Your task to perform on an android device: Open CNN.com Image 0: 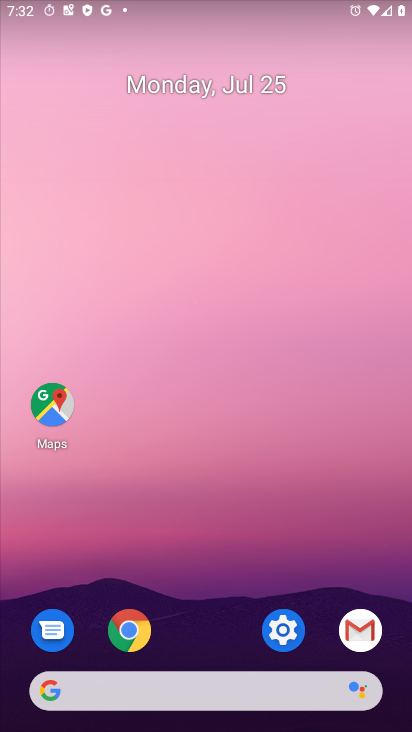
Step 0: click (135, 647)
Your task to perform on an android device: Open CNN.com Image 1: 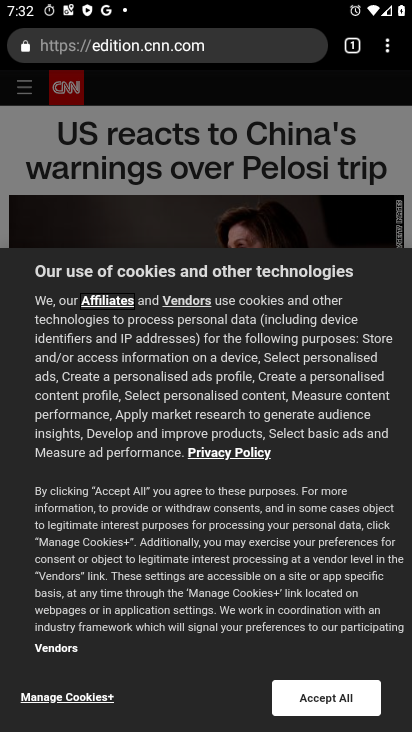
Step 1: click (129, 52)
Your task to perform on an android device: Open CNN.com Image 2: 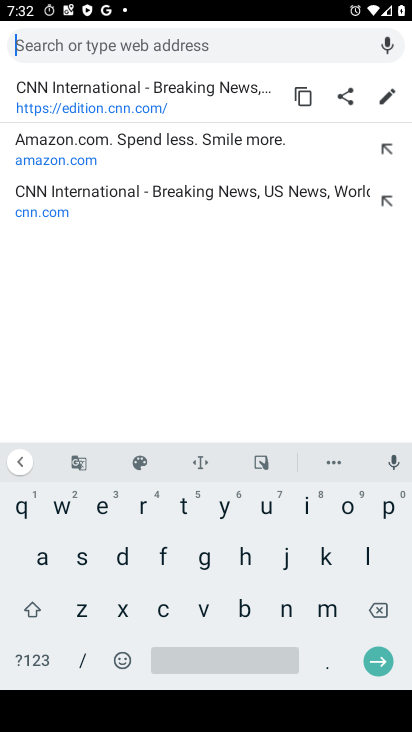
Step 2: click (97, 88)
Your task to perform on an android device: Open CNN.com Image 3: 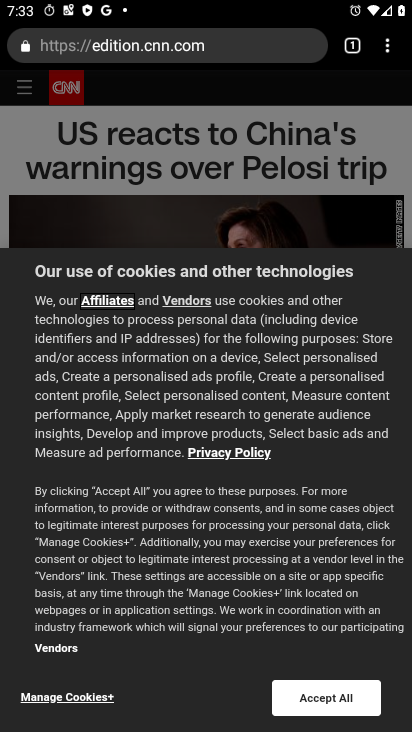
Step 3: click (325, 689)
Your task to perform on an android device: Open CNN.com Image 4: 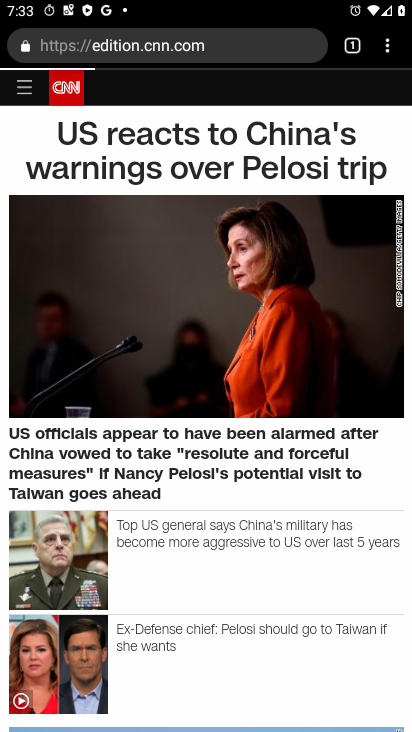
Step 4: task complete